Your task to perform on an android device: What's the weather? Image 0: 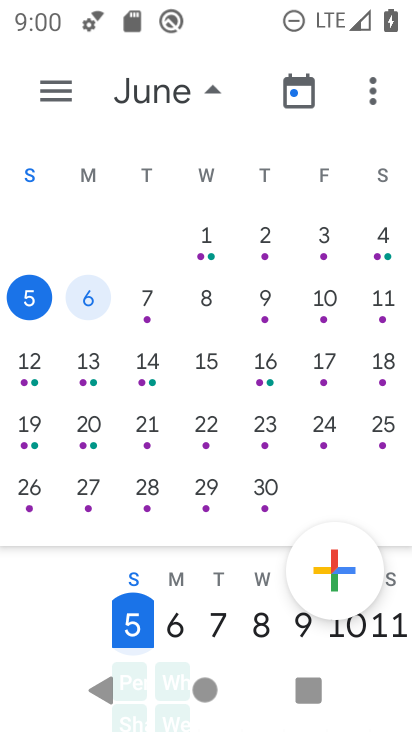
Step 0: press home button
Your task to perform on an android device: What's the weather? Image 1: 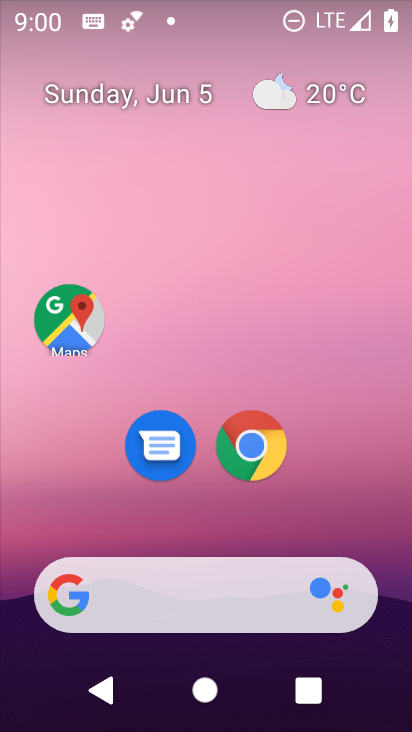
Step 1: drag from (341, 439) to (320, 34)
Your task to perform on an android device: What's the weather? Image 2: 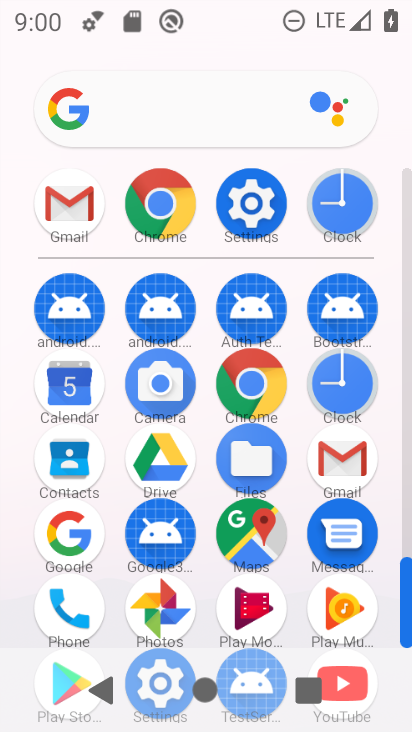
Step 2: click (251, 386)
Your task to perform on an android device: What's the weather? Image 3: 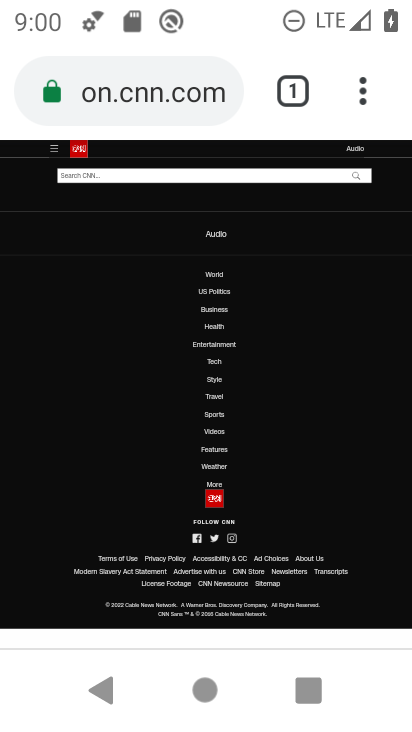
Step 3: task complete